Your task to perform on an android device: Show me recent news Image 0: 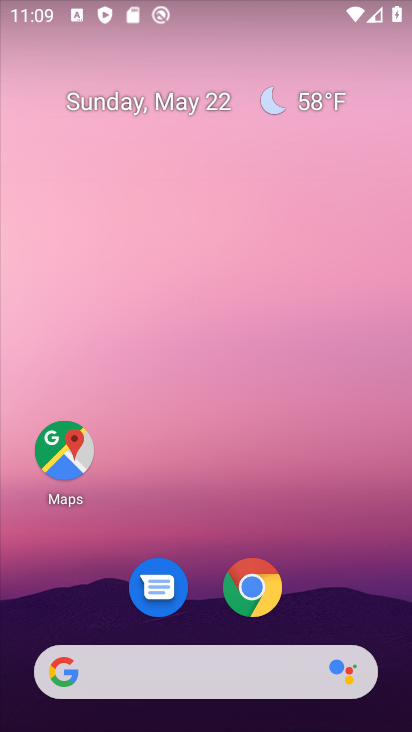
Step 0: click (228, 671)
Your task to perform on an android device: Show me recent news Image 1: 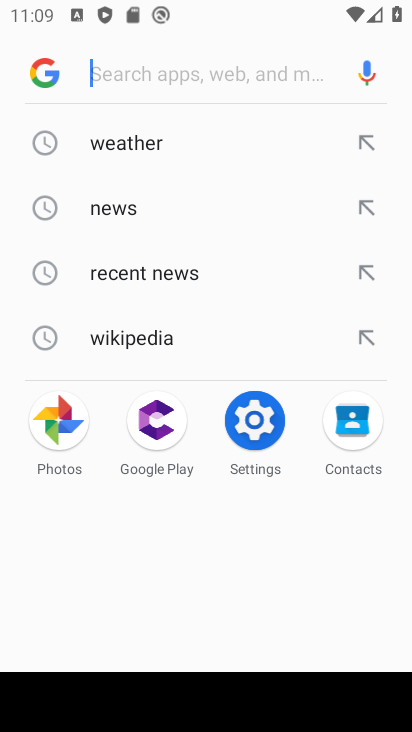
Step 1: click (117, 269)
Your task to perform on an android device: Show me recent news Image 2: 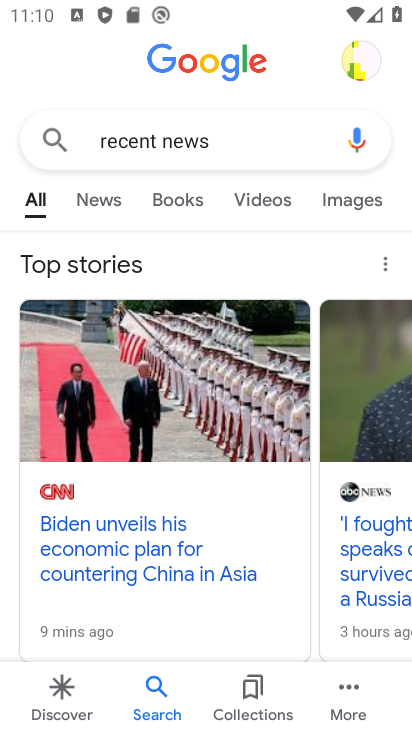
Step 2: task complete